Your task to perform on an android device: empty trash in google photos Image 0: 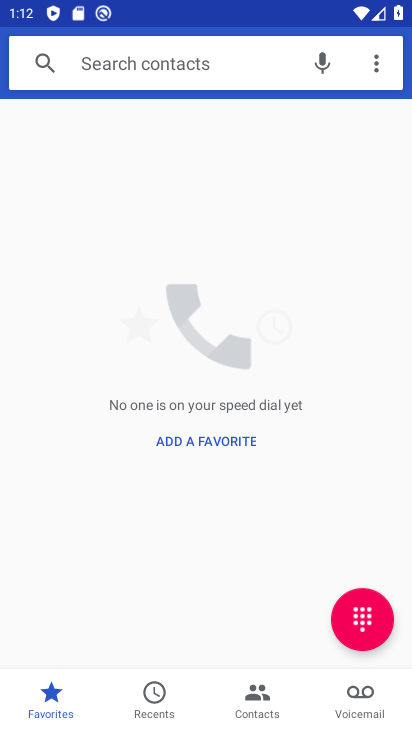
Step 0: press home button
Your task to perform on an android device: empty trash in google photos Image 1: 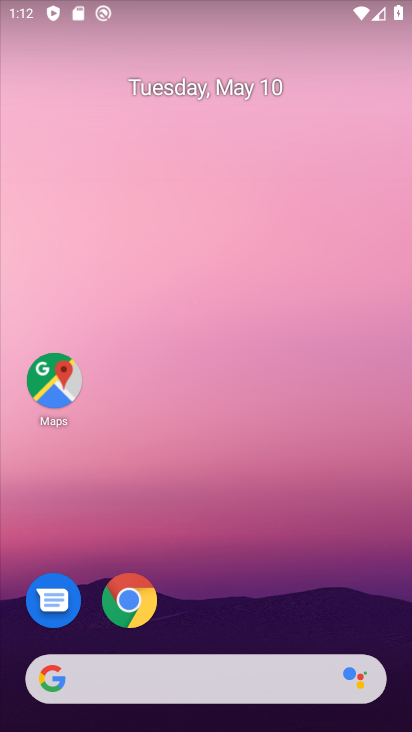
Step 1: drag from (215, 610) to (263, 48)
Your task to perform on an android device: empty trash in google photos Image 2: 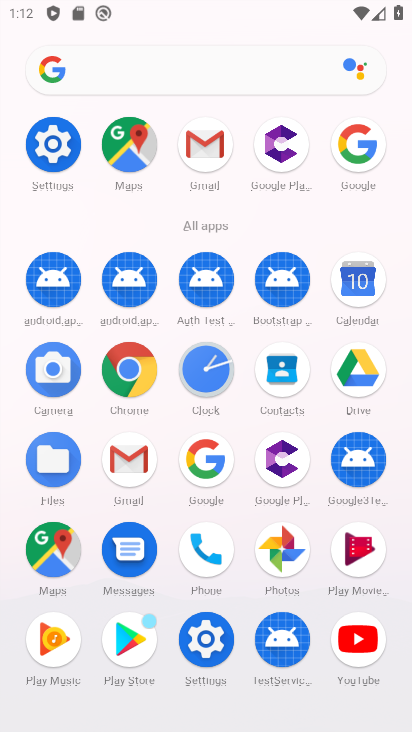
Step 2: click (285, 547)
Your task to perform on an android device: empty trash in google photos Image 3: 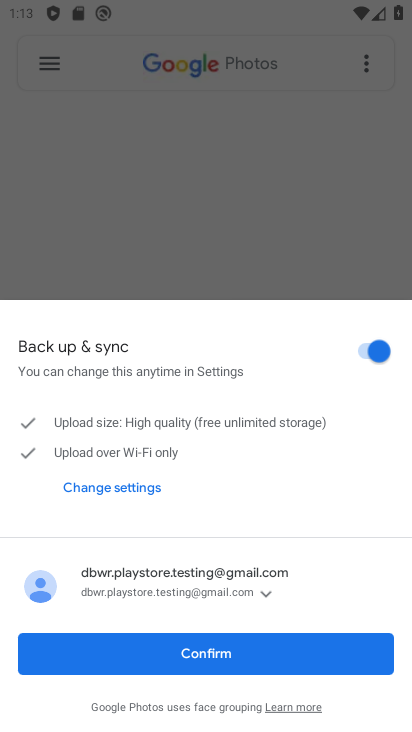
Step 3: click (215, 639)
Your task to perform on an android device: empty trash in google photos Image 4: 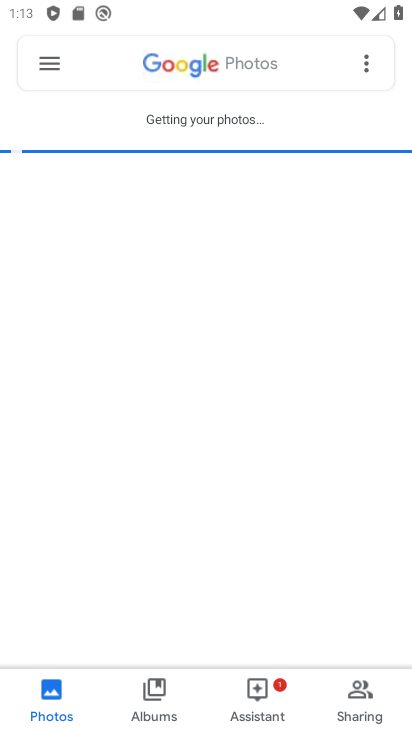
Step 4: click (54, 61)
Your task to perform on an android device: empty trash in google photos Image 5: 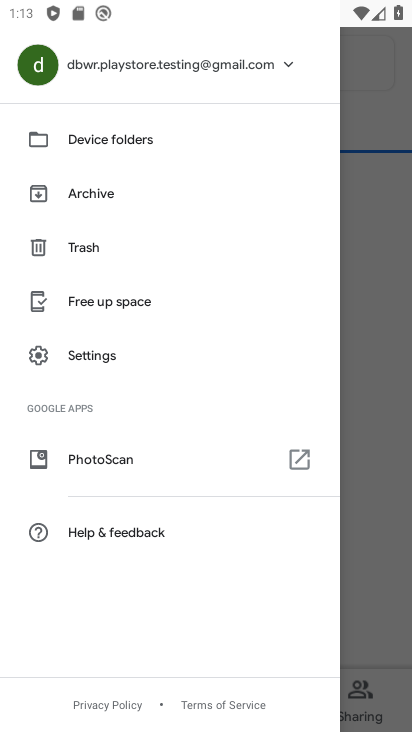
Step 5: click (119, 246)
Your task to perform on an android device: empty trash in google photos Image 6: 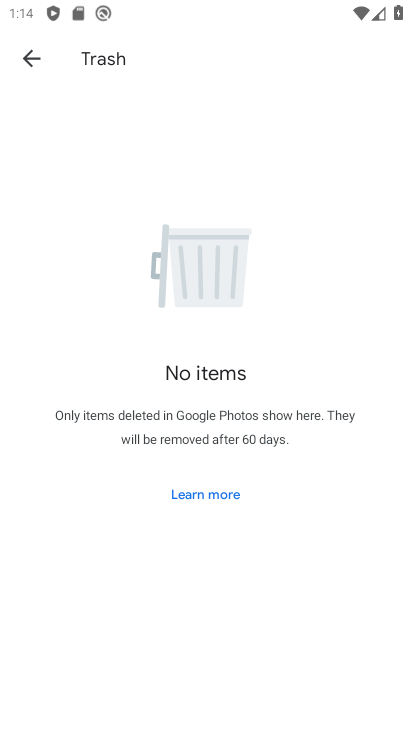
Step 6: task complete